Your task to perform on an android device: turn off sleep mode Image 0: 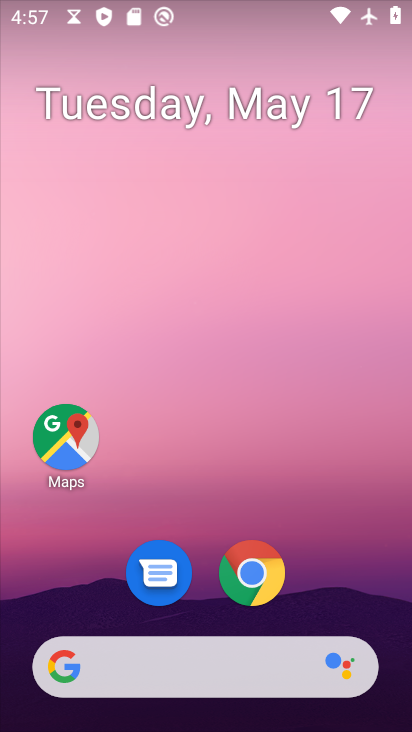
Step 0: drag from (346, 659) to (209, 156)
Your task to perform on an android device: turn off sleep mode Image 1: 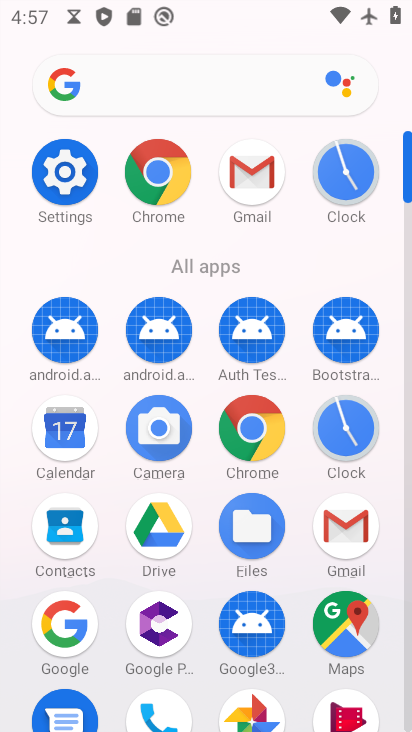
Step 1: click (55, 173)
Your task to perform on an android device: turn off sleep mode Image 2: 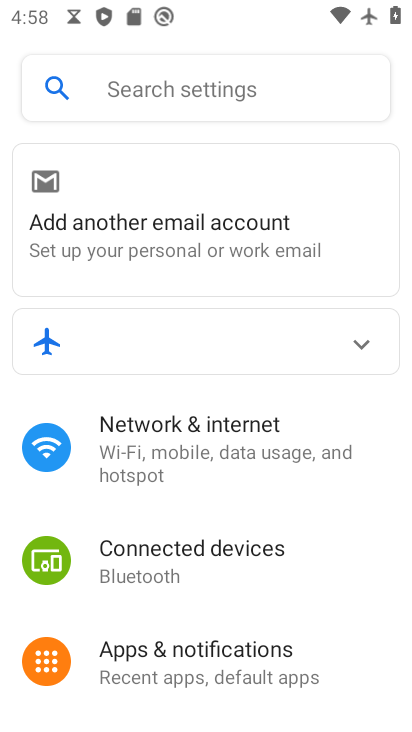
Step 2: drag from (245, 644) to (215, 328)
Your task to perform on an android device: turn off sleep mode Image 3: 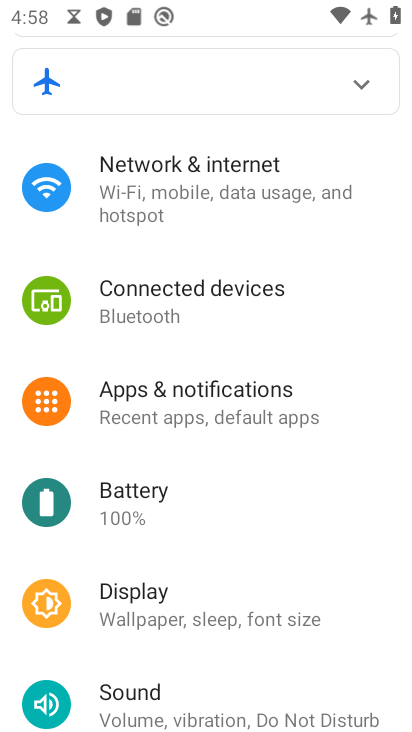
Step 3: click (139, 617)
Your task to perform on an android device: turn off sleep mode Image 4: 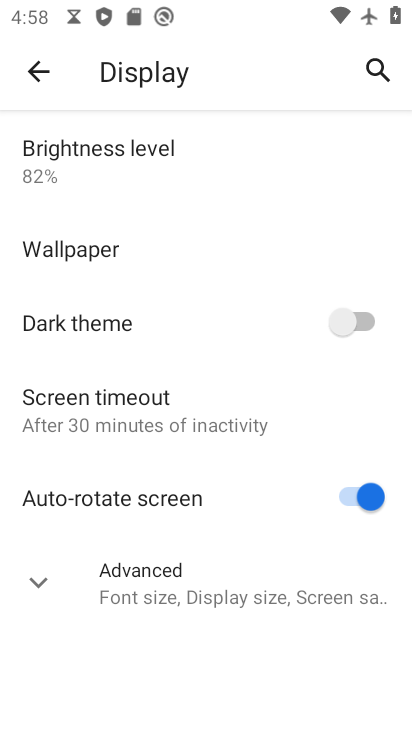
Step 4: click (105, 405)
Your task to perform on an android device: turn off sleep mode Image 5: 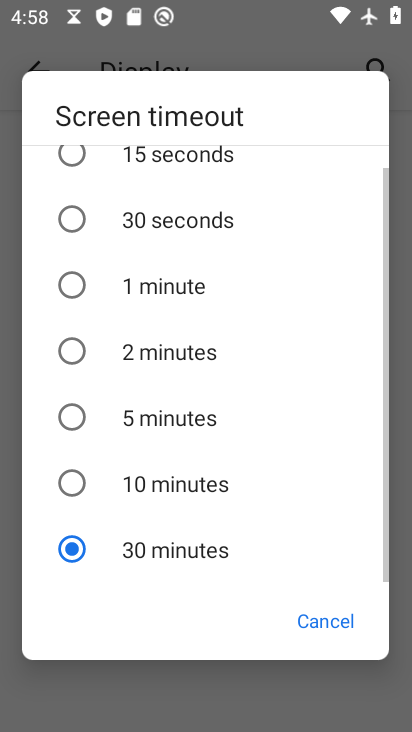
Step 5: click (61, 418)
Your task to perform on an android device: turn off sleep mode Image 6: 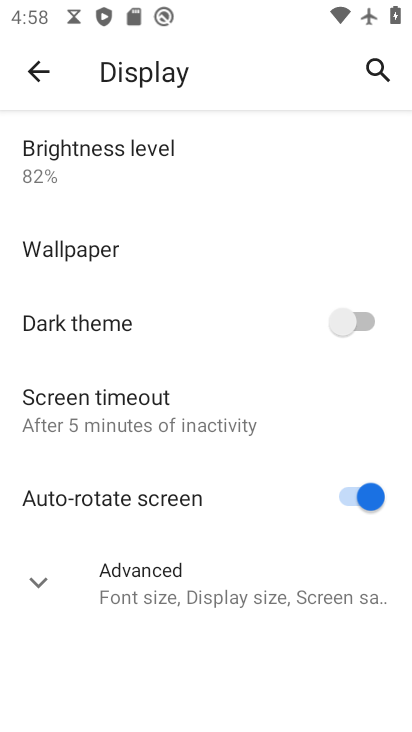
Step 6: task complete